Your task to perform on an android device: Open Google Maps and go to "Timeline" Image 0: 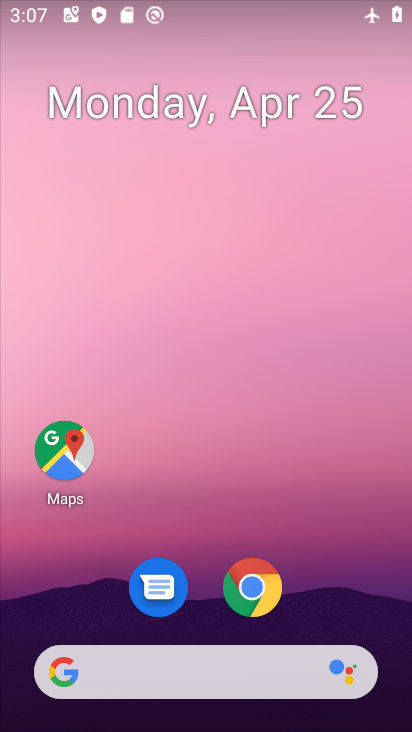
Step 0: click (60, 453)
Your task to perform on an android device: Open Google Maps and go to "Timeline" Image 1: 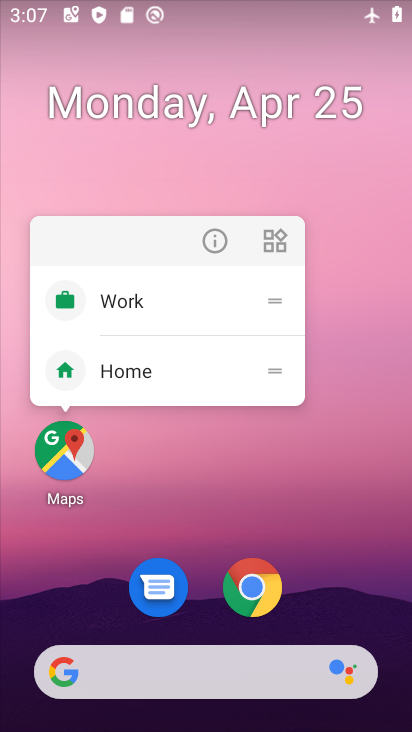
Step 1: click (60, 453)
Your task to perform on an android device: Open Google Maps and go to "Timeline" Image 2: 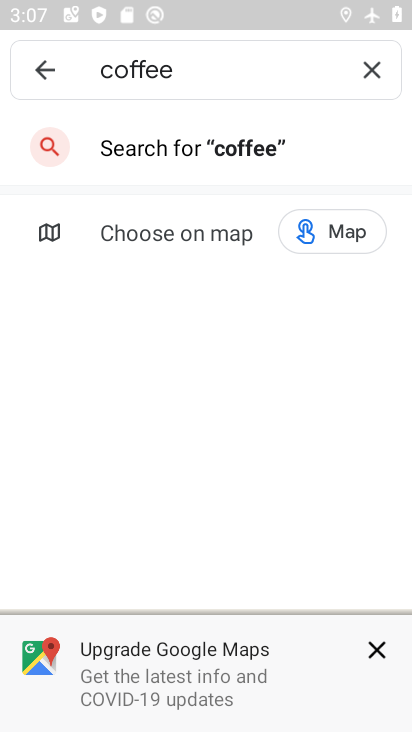
Step 2: click (364, 63)
Your task to perform on an android device: Open Google Maps and go to "Timeline" Image 3: 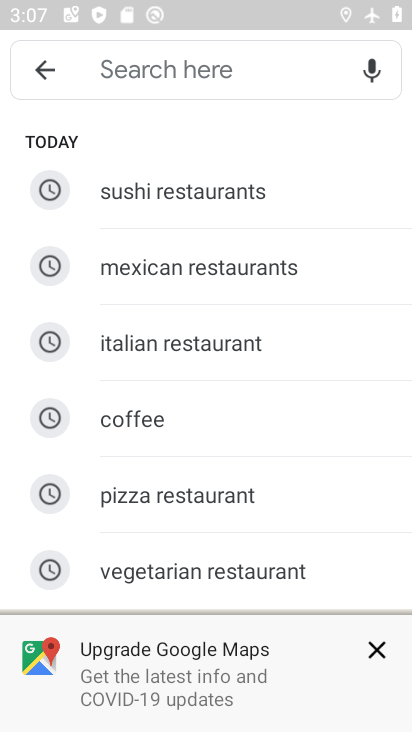
Step 3: click (48, 72)
Your task to perform on an android device: Open Google Maps and go to "Timeline" Image 4: 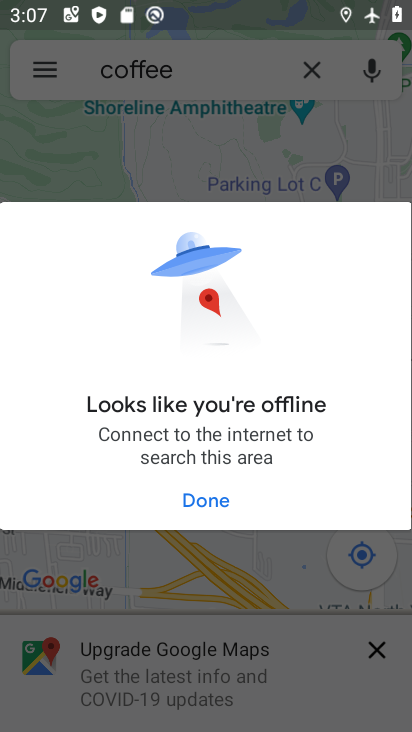
Step 4: click (195, 496)
Your task to perform on an android device: Open Google Maps and go to "Timeline" Image 5: 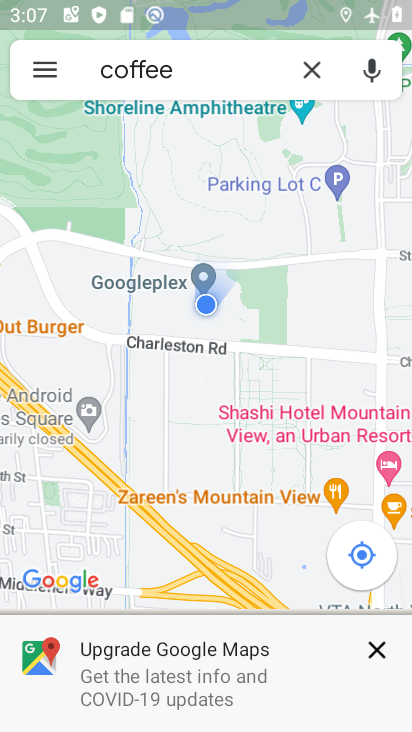
Step 5: click (40, 66)
Your task to perform on an android device: Open Google Maps and go to "Timeline" Image 6: 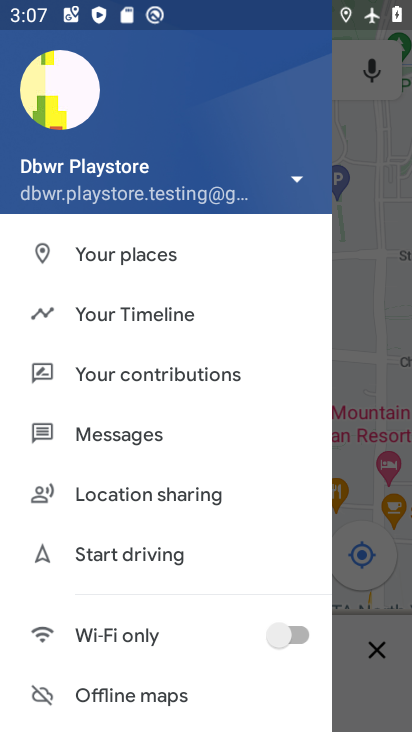
Step 6: click (128, 319)
Your task to perform on an android device: Open Google Maps and go to "Timeline" Image 7: 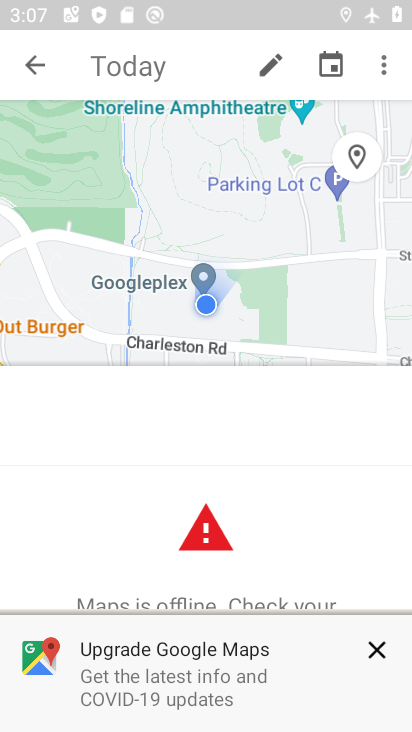
Step 7: task complete